Your task to perform on an android device: turn notification dots off Image 0: 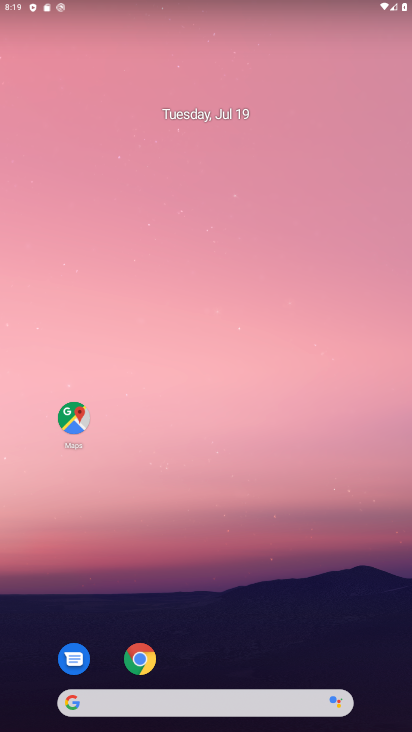
Step 0: drag from (231, 673) to (238, 256)
Your task to perform on an android device: turn notification dots off Image 1: 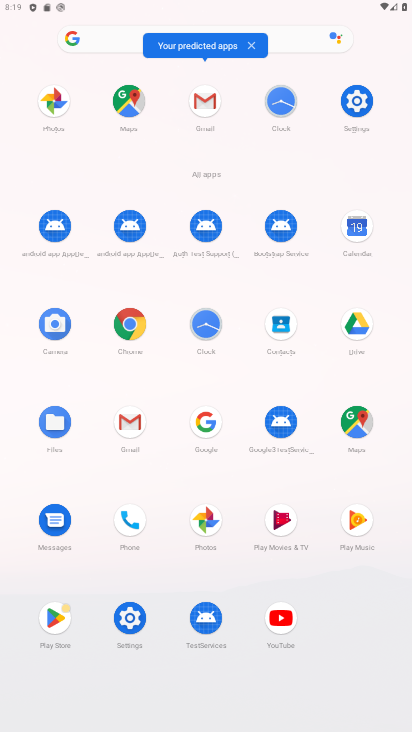
Step 1: click (132, 632)
Your task to perform on an android device: turn notification dots off Image 2: 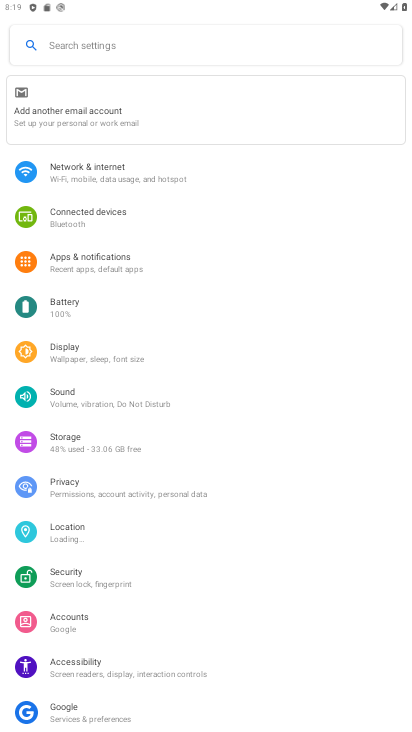
Step 2: click (157, 258)
Your task to perform on an android device: turn notification dots off Image 3: 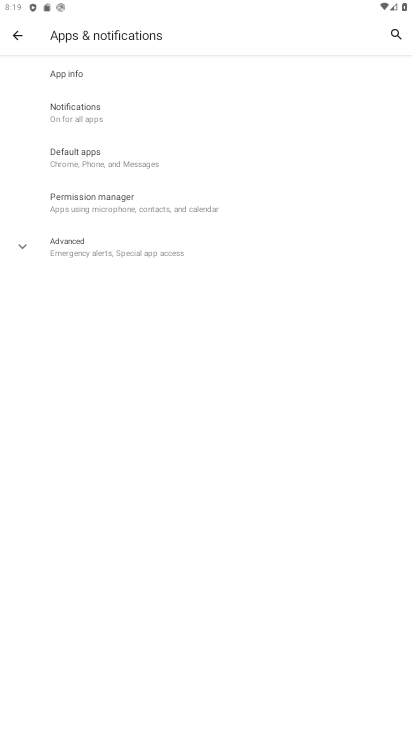
Step 3: click (122, 108)
Your task to perform on an android device: turn notification dots off Image 4: 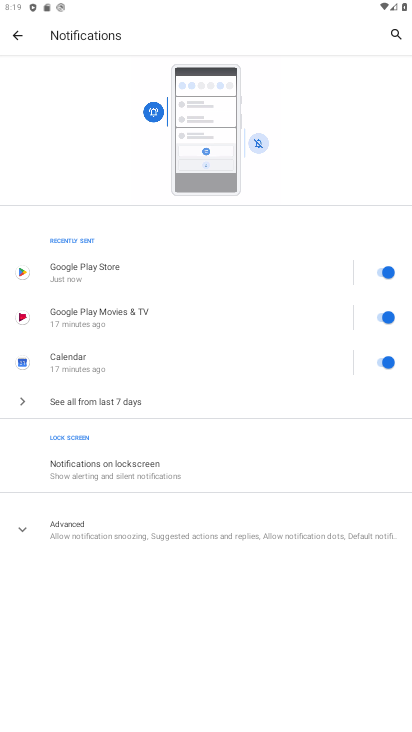
Step 4: click (137, 536)
Your task to perform on an android device: turn notification dots off Image 5: 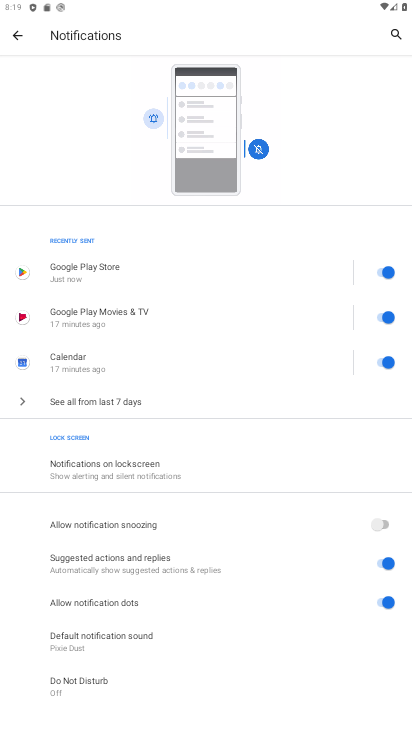
Step 5: click (383, 597)
Your task to perform on an android device: turn notification dots off Image 6: 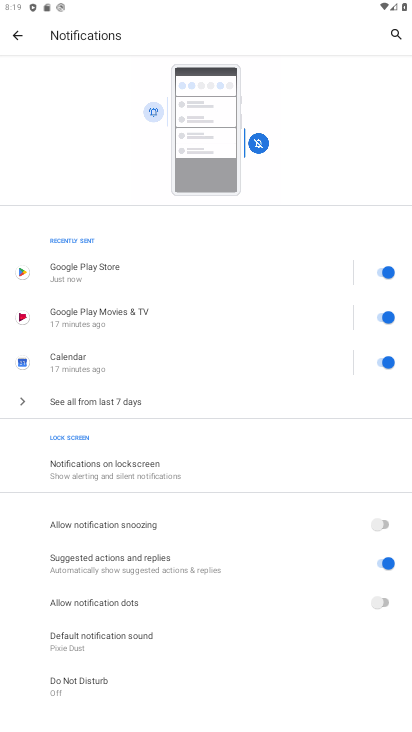
Step 6: task complete